Your task to perform on an android device: turn smart compose on in the gmail app Image 0: 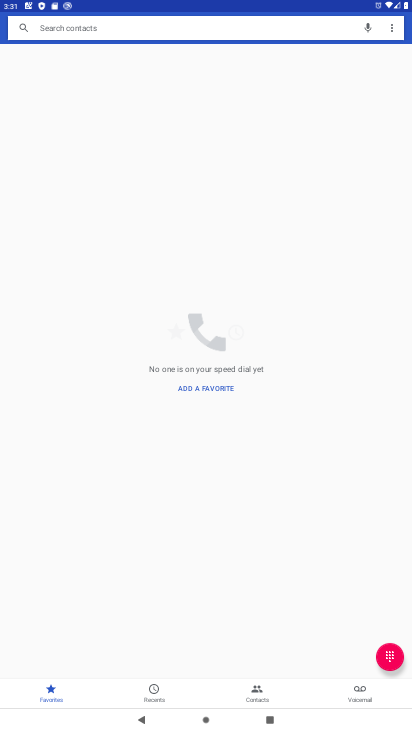
Step 0: press home button
Your task to perform on an android device: turn smart compose on in the gmail app Image 1: 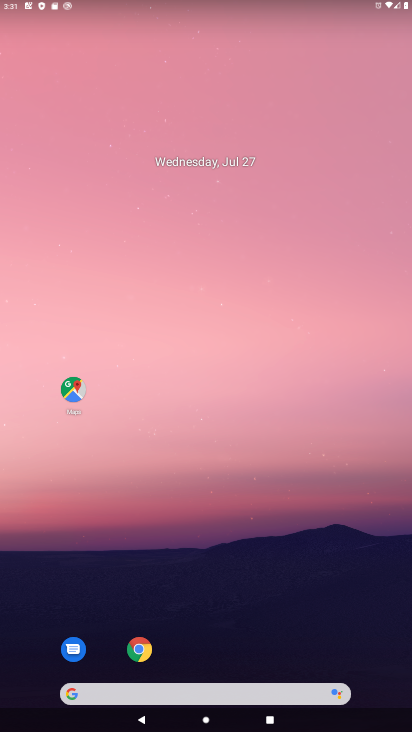
Step 1: drag from (385, 654) to (323, 127)
Your task to perform on an android device: turn smart compose on in the gmail app Image 2: 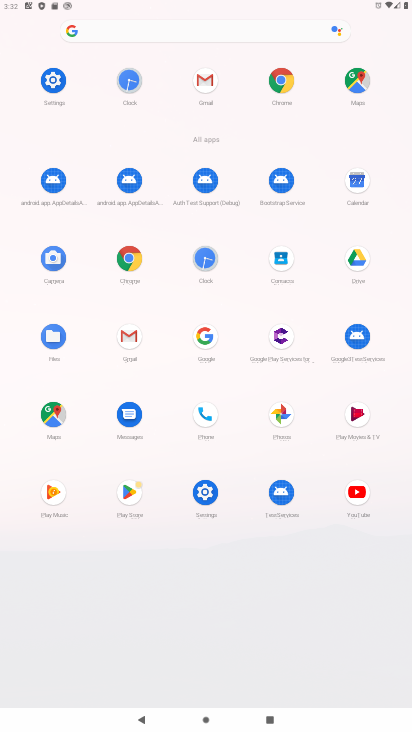
Step 2: click (128, 335)
Your task to perform on an android device: turn smart compose on in the gmail app Image 3: 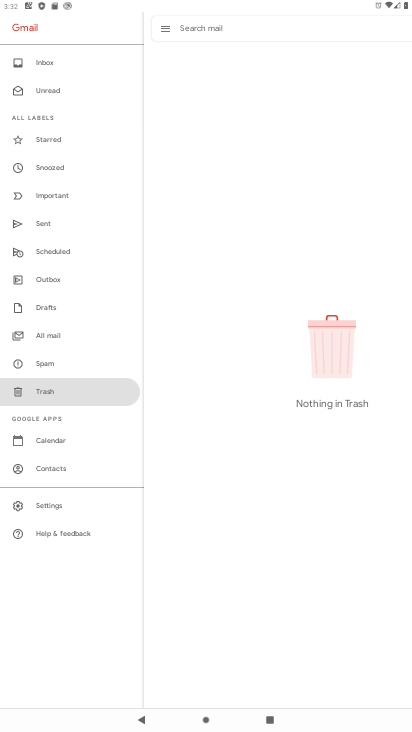
Step 3: click (51, 501)
Your task to perform on an android device: turn smart compose on in the gmail app Image 4: 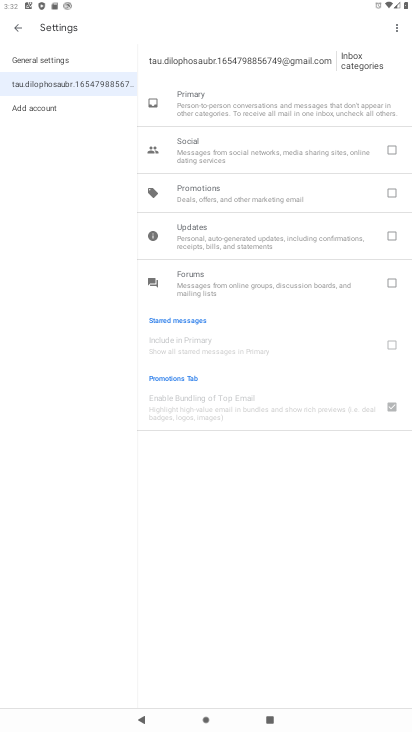
Step 4: task complete